Your task to perform on an android device: Show me some nice wallpapers for my laptop Image 0: 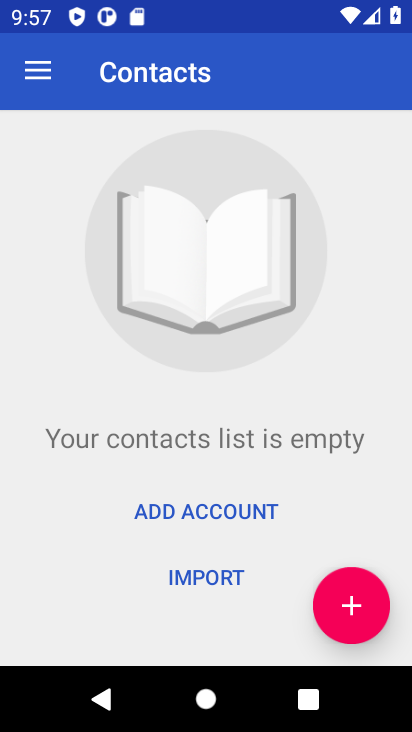
Step 0: press home button
Your task to perform on an android device: Show me some nice wallpapers for my laptop Image 1: 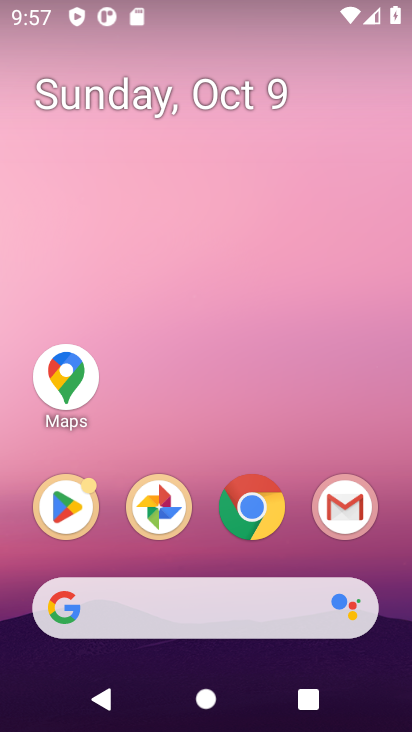
Step 1: drag from (208, 553) to (214, 0)
Your task to perform on an android device: Show me some nice wallpapers for my laptop Image 2: 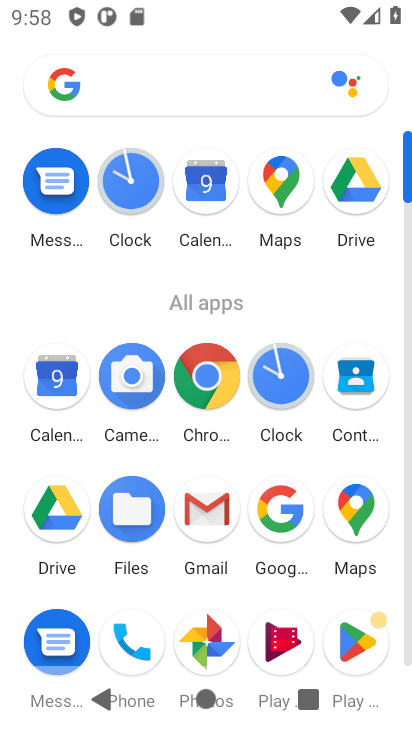
Step 2: click (199, 377)
Your task to perform on an android device: Show me some nice wallpapers for my laptop Image 3: 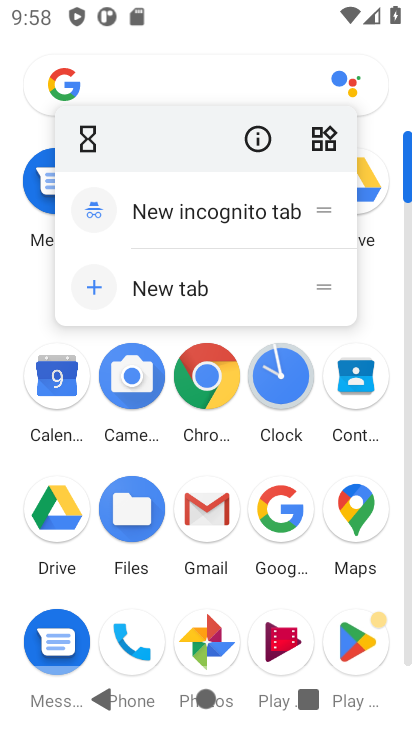
Step 3: click (199, 377)
Your task to perform on an android device: Show me some nice wallpapers for my laptop Image 4: 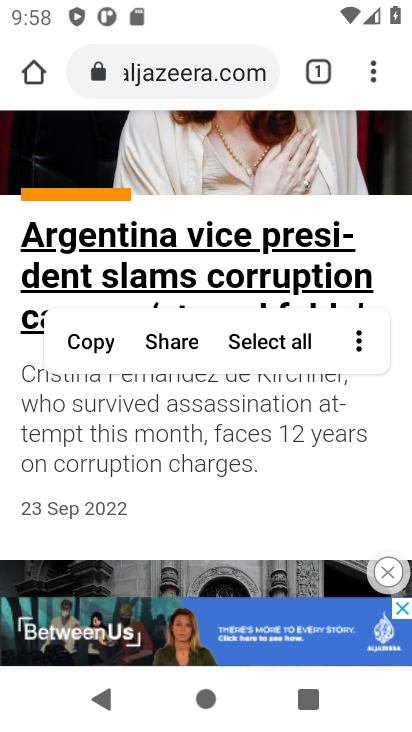
Step 4: click (213, 68)
Your task to perform on an android device: Show me some nice wallpapers for my laptop Image 5: 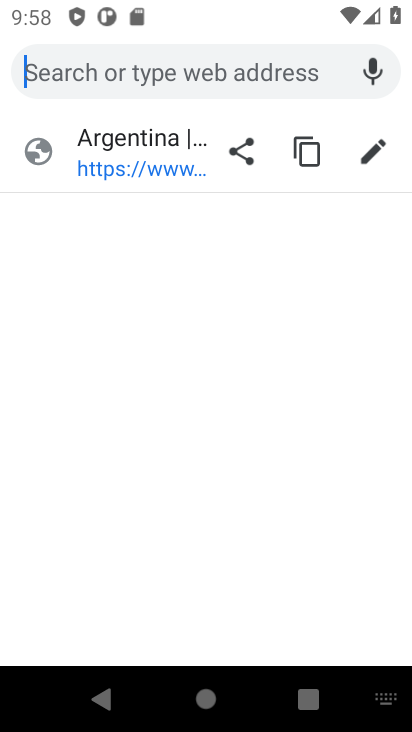
Step 5: type "show me some nice wallpapers for my laptop"
Your task to perform on an android device: Show me some nice wallpapers for my laptop Image 6: 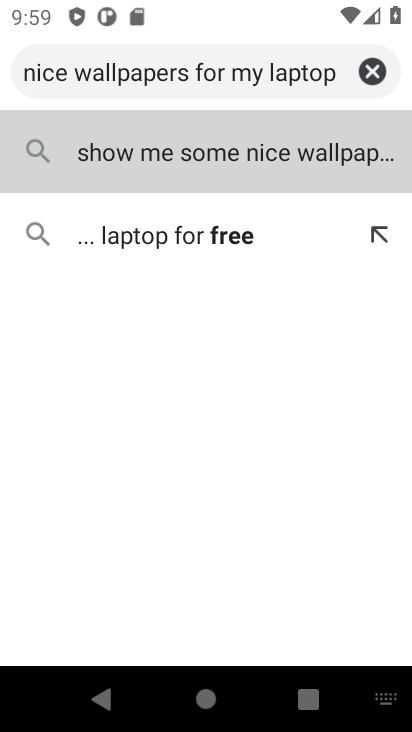
Step 6: press enter
Your task to perform on an android device: Show me some nice wallpapers for my laptop Image 7: 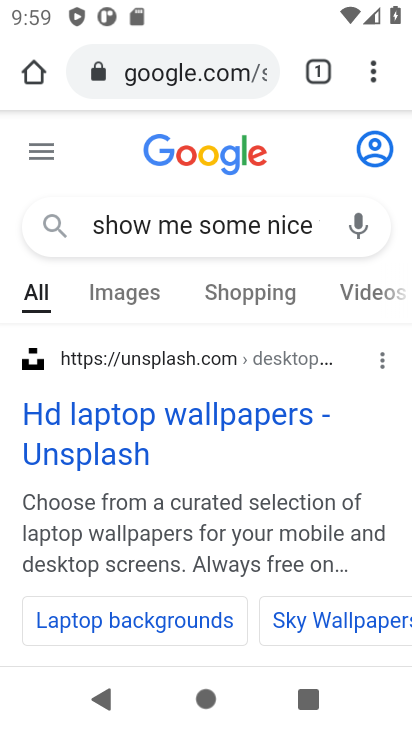
Step 7: drag from (225, 408) to (265, 32)
Your task to perform on an android device: Show me some nice wallpapers for my laptop Image 8: 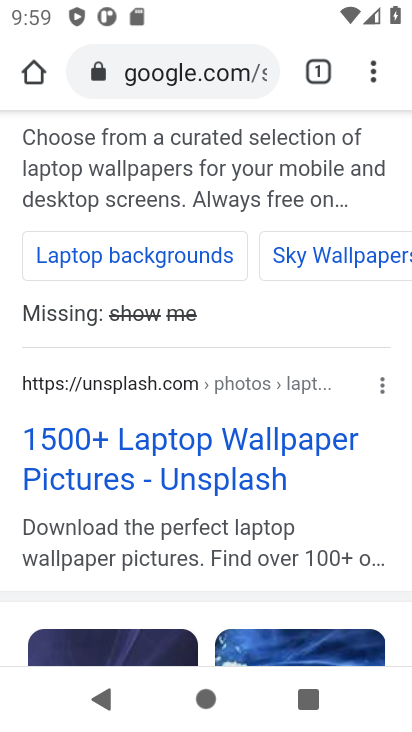
Step 8: drag from (265, 167) to (178, 613)
Your task to perform on an android device: Show me some nice wallpapers for my laptop Image 9: 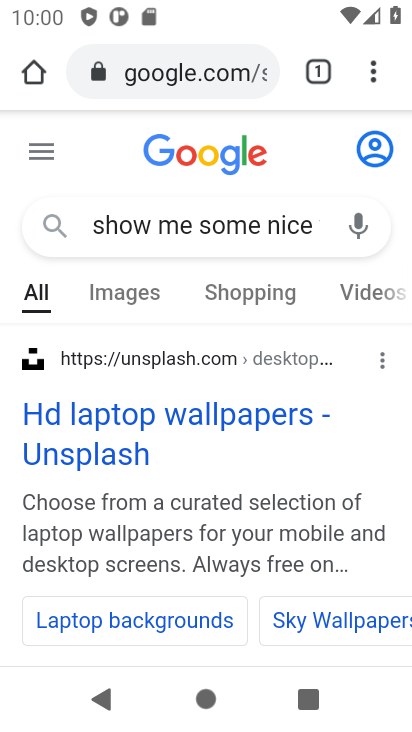
Step 9: click (224, 422)
Your task to perform on an android device: Show me some nice wallpapers for my laptop Image 10: 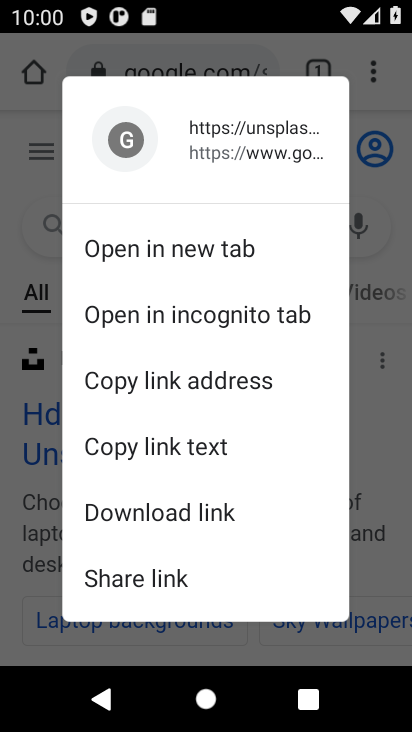
Step 10: click (9, 416)
Your task to perform on an android device: Show me some nice wallpapers for my laptop Image 11: 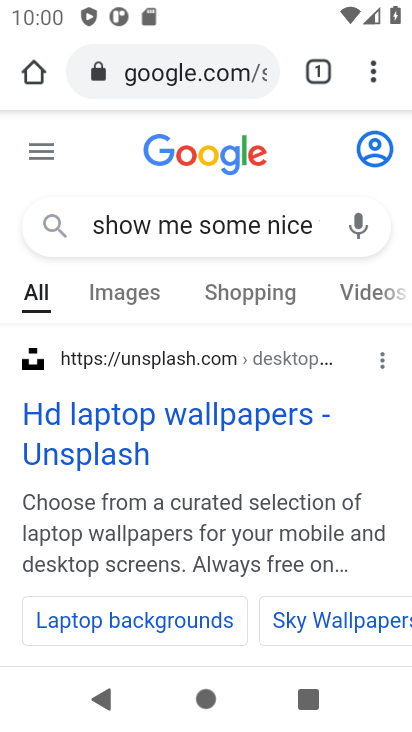
Step 11: click (50, 427)
Your task to perform on an android device: Show me some nice wallpapers for my laptop Image 12: 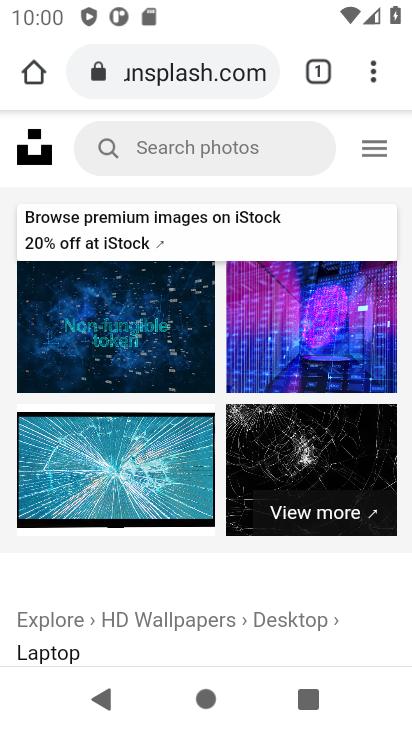
Step 12: task complete